Your task to perform on an android device: toggle sleep mode Image 0: 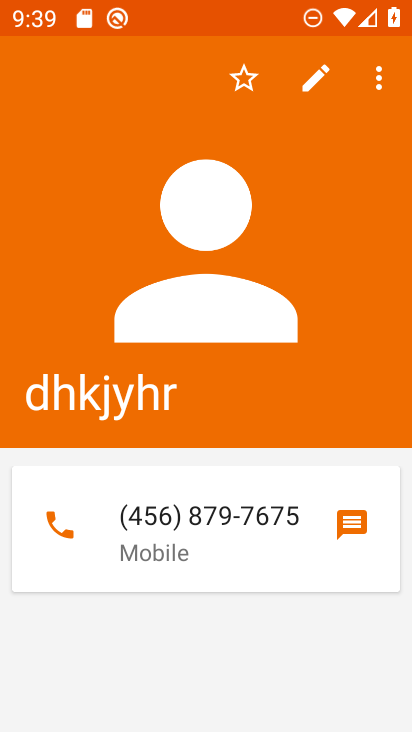
Step 0: press home button
Your task to perform on an android device: toggle sleep mode Image 1: 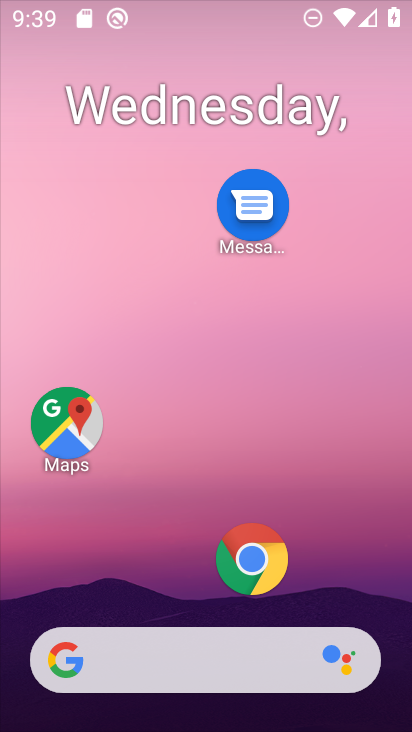
Step 1: drag from (210, 547) to (301, 166)
Your task to perform on an android device: toggle sleep mode Image 2: 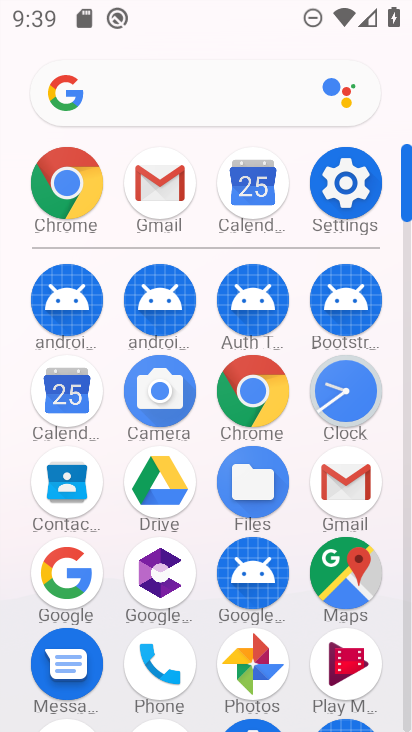
Step 2: click (354, 202)
Your task to perform on an android device: toggle sleep mode Image 3: 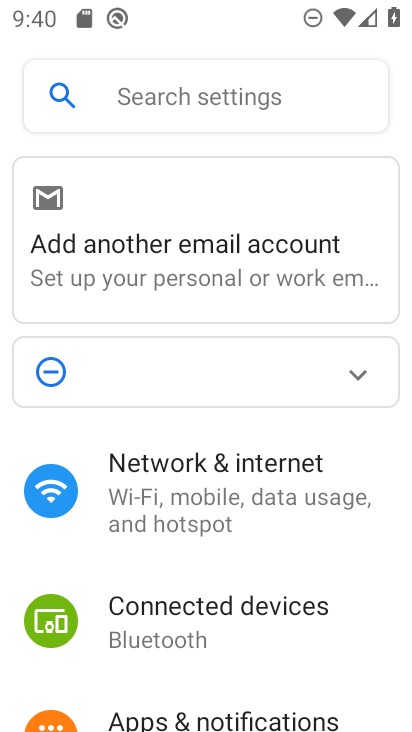
Step 3: drag from (227, 381) to (249, 205)
Your task to perform on an android device: toggle sleep mode Image 4: 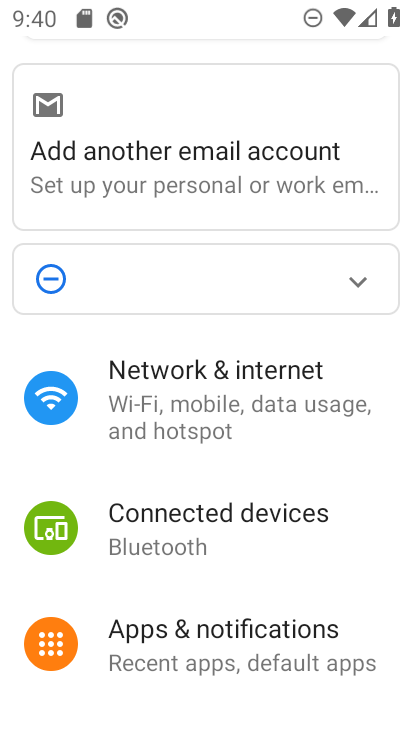
Step 4: drag from (225, 574) to (255, 284)
Your task to perform on an android device: toggle sleep mode Image 5: 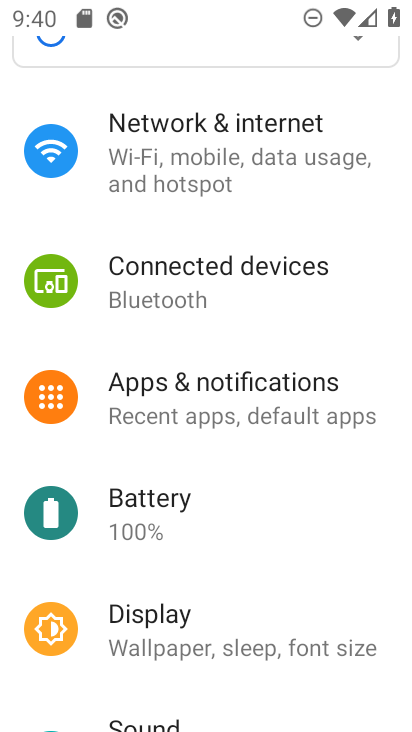
Step 5: click (214, 620)
Your task to perform on an android device: toggle sleep mode Image 6: 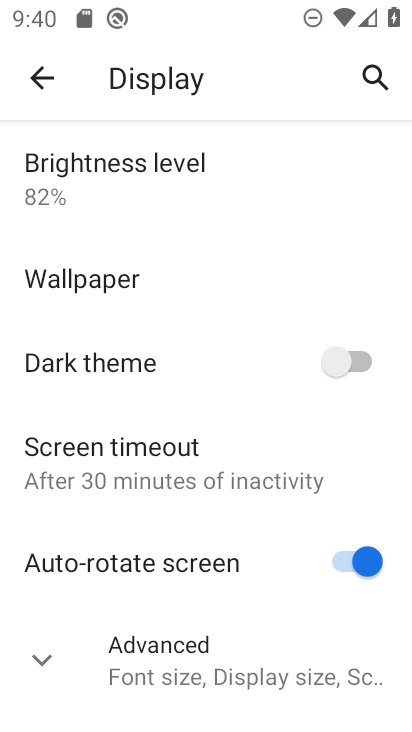
Step 6: click (202, 669)
Your task to perform on an android device: toggle sleep mode Image 7: 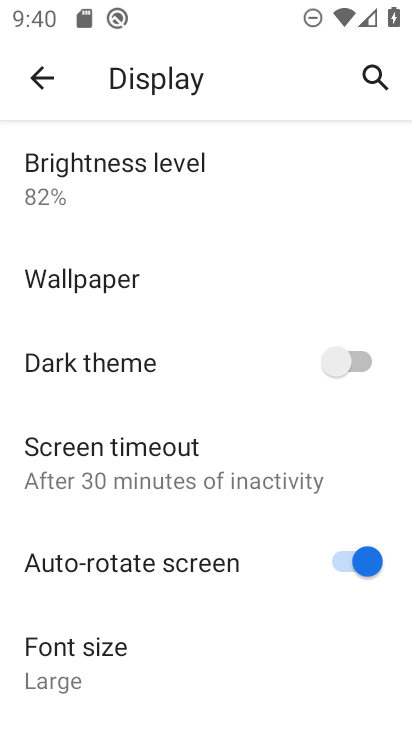
Step 7: task complete